Your task to perform on an android device: set the timer Image 0: 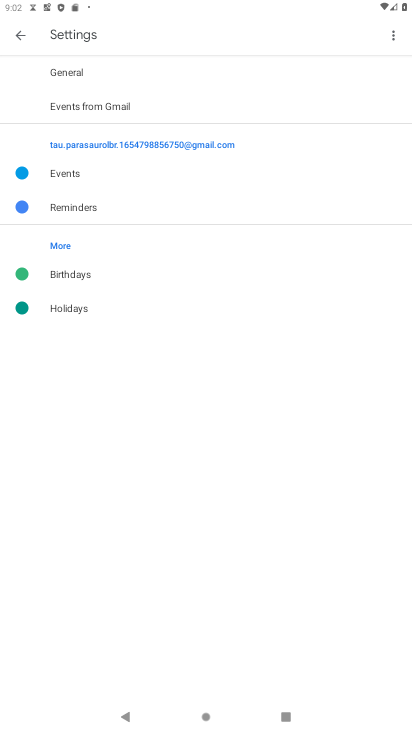
Step 0: press home button
Your task to perform on an android device: set the timer Image 1: 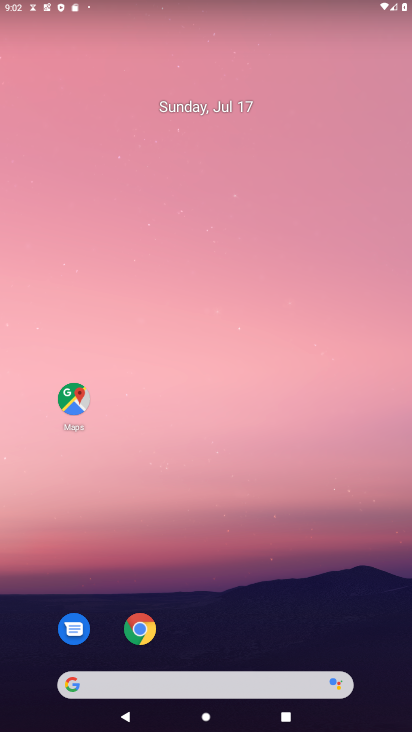
Step 1: drag from (229, 728) to (230, 132)
Your task to perform on an android device: set the timer Image 2: 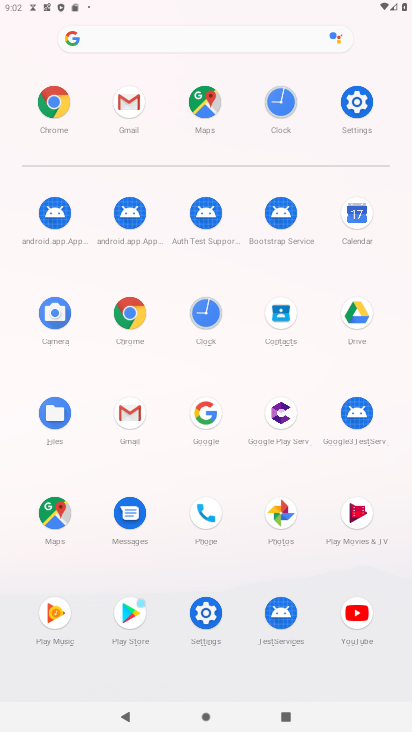
Step 2: click (204, 312)
Your task to perform on an android device: set the timer Image 3: 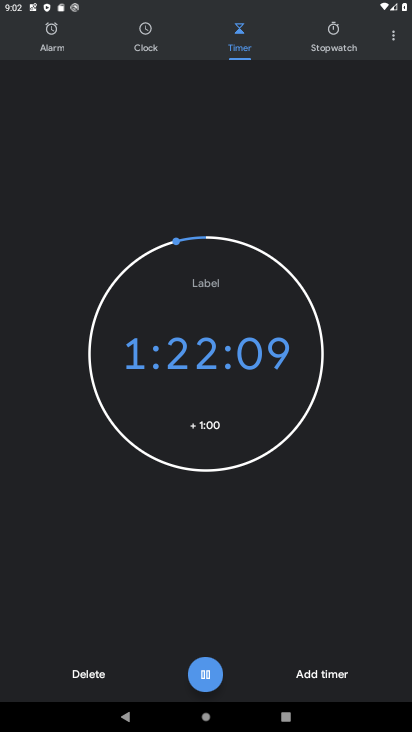
Step 3: click (309, 671)
Your task to perform on an android device: set the timer Image 4: 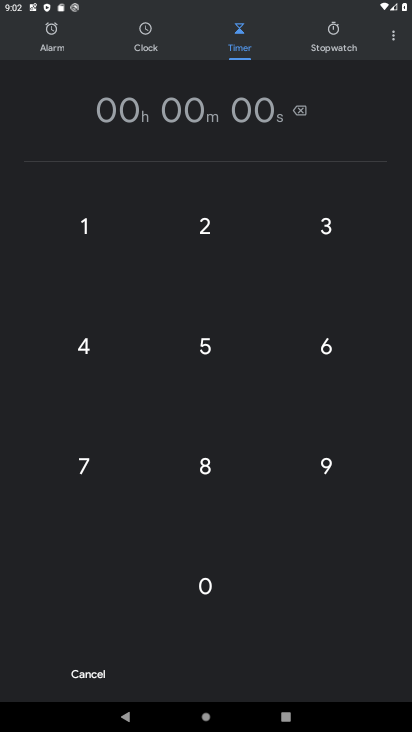
Step 4: click (188, 213)
Your task to perform on an android device: set the timer Image 5: 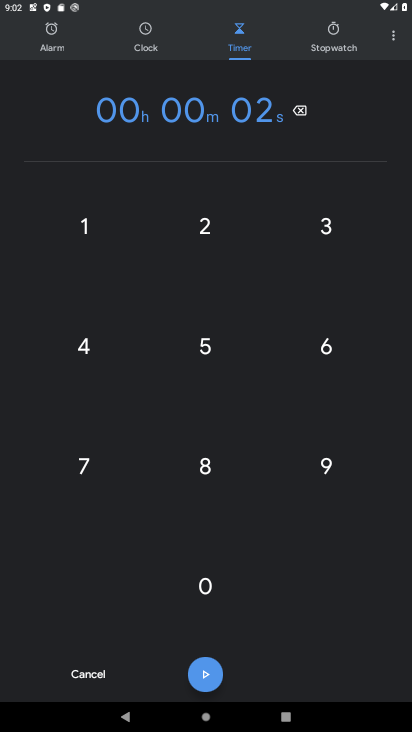
Step 5: click (67, 222)
Your task to perform on an android device: set the timer Image 6: 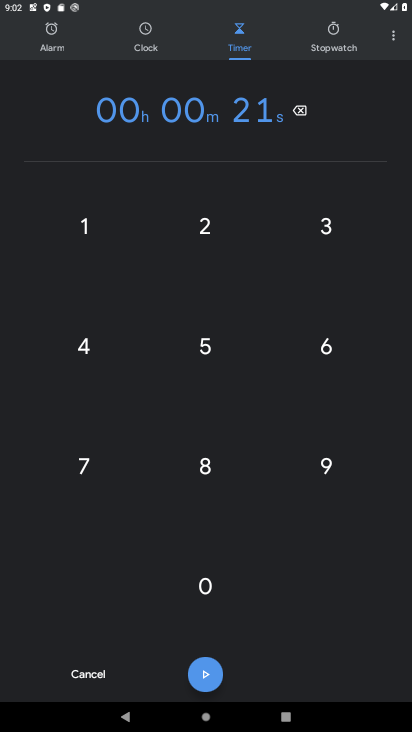
Step 6: click (94, 339)
Your task to perform on an android device: set the timer Image 7: 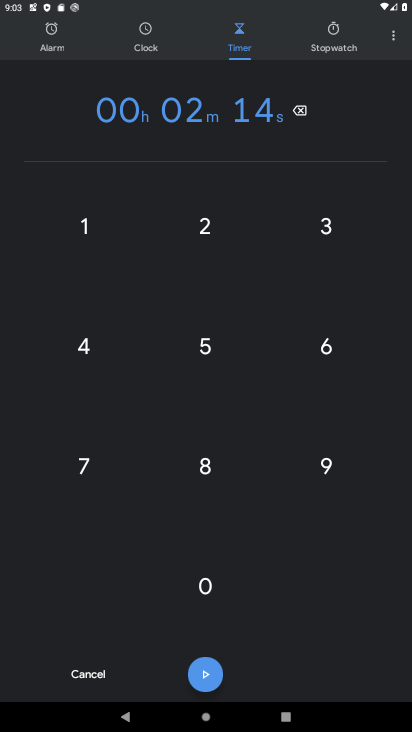
Step 7: click (217, 672)
Your task to perform on an android device: set the timer Image 8: 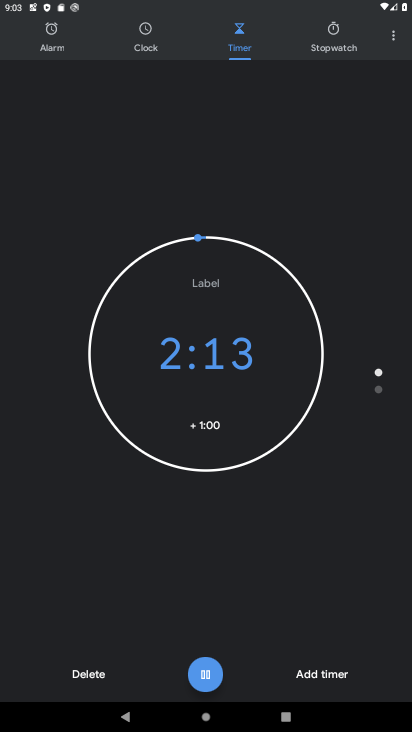
Step 8: task complete